Your task to perform on an android device: toggle show notifications on the lock screen Image 0: 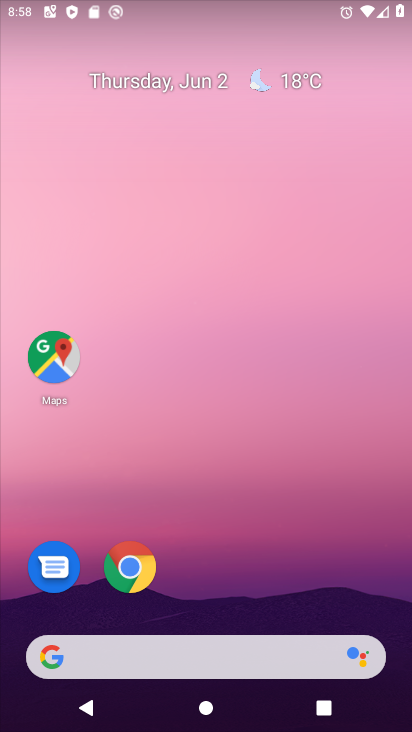
Step 0: drag from (222, 591) to (315, 103)
Your task to perform on an android device: toggle show notifications on the lock screen Image 1: 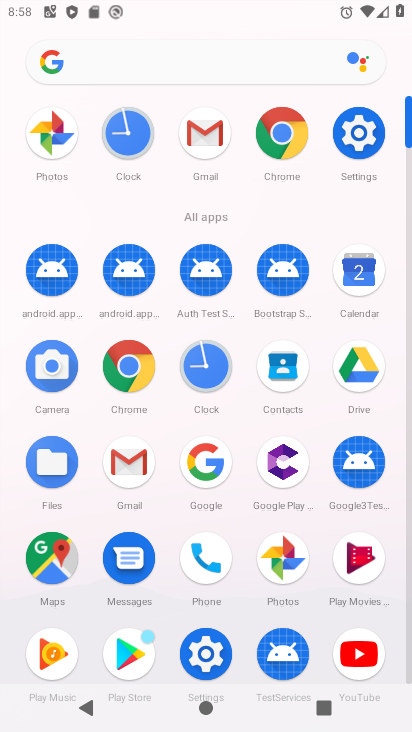
Step 1: click (205, 648)
Your task to perform on an android device: toggle show notifications on the lock screen Image 2: 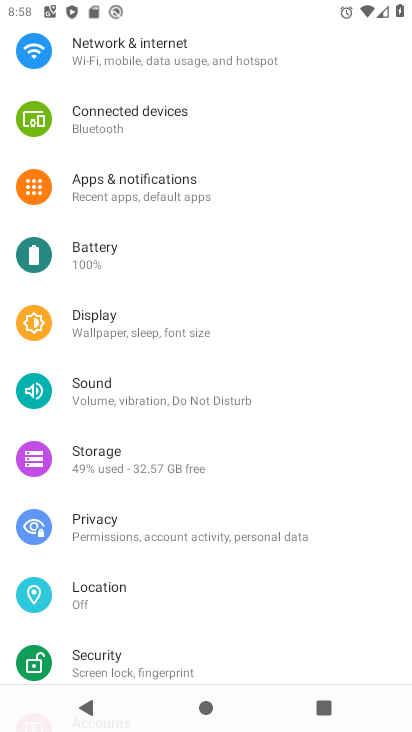
Step 2: click (166, 184)
Your task to perform on an android device: toggle show notifications on the lock screen Image 3: 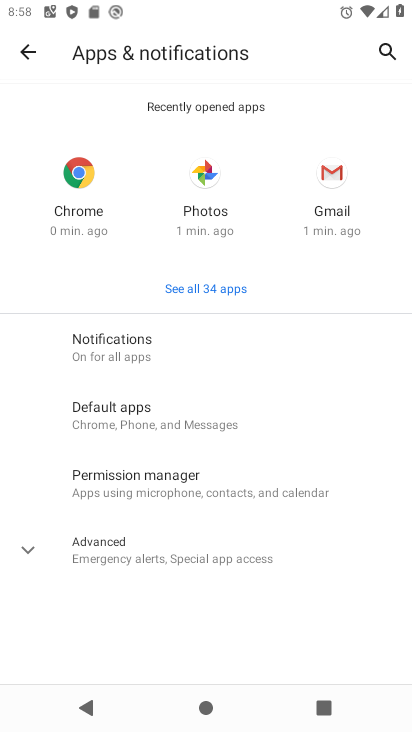
Step 3: click (136, 346)
Your task to perform on an android device: toggle show notifications on the lock screen Image 4: 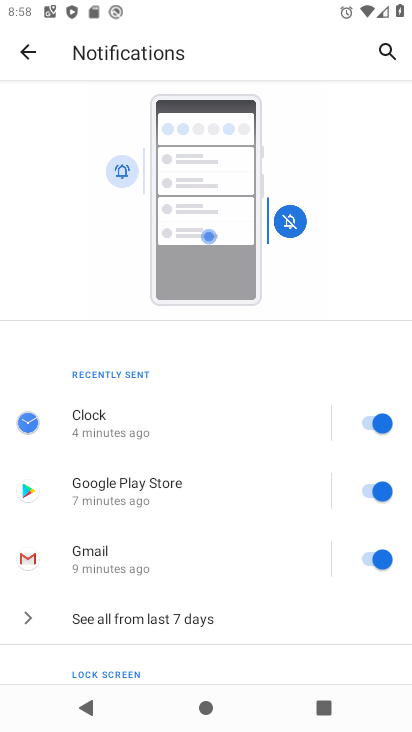
Step 4: drag from (148, 585) to (190, 330)
Your task to perform on an android device: toggle show notifications on the lock screen Image 5: 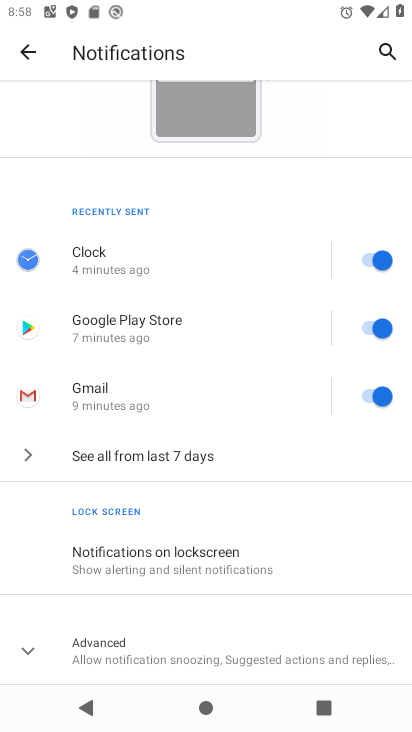
Step 5: click (158, 569)
Your task to perform on an android device: toggle show notifications on the lock screen Image 6: 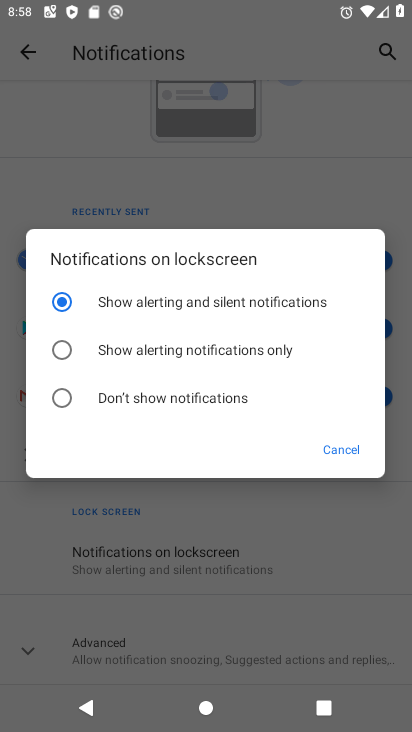
Step 6: click (150, 394)
Your task to perform on an android device: toggle show notifications on the lock screen Image 7: 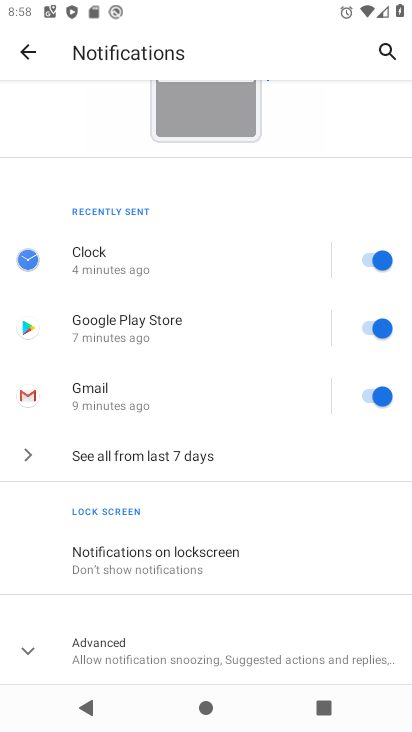
Step 7: task complete